Your task to perform on an android device: turn off smart reply in the gmail app Image 0: 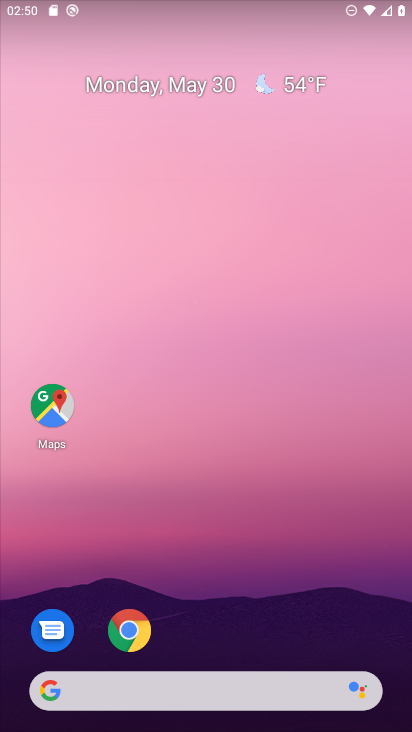
Step 0: press home button
Your task to perform on an android device: turn off smart reply in the gmail app Image 1: 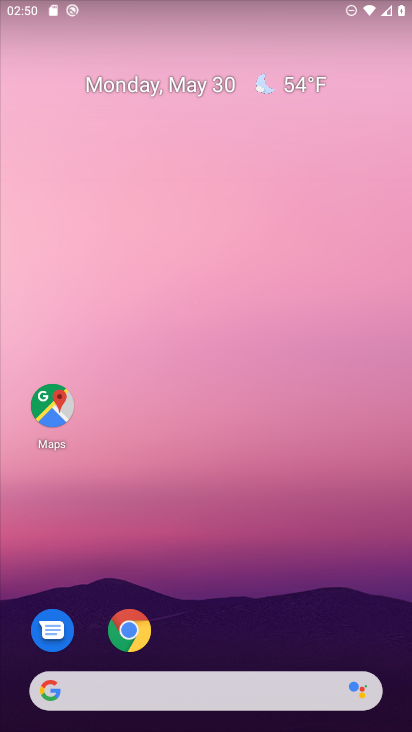
Step 1: drag from (157, 694) to (333, 275)
Your task to perform on an android device: turn off smart reply in the gmail app Image 2: 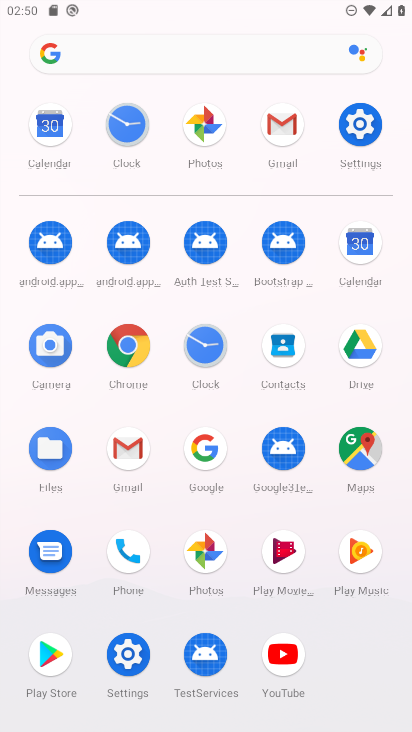
Step 2: click (281, 137)
Your task to perform on an android device: turn off smart reply in the gmail app Image 3: 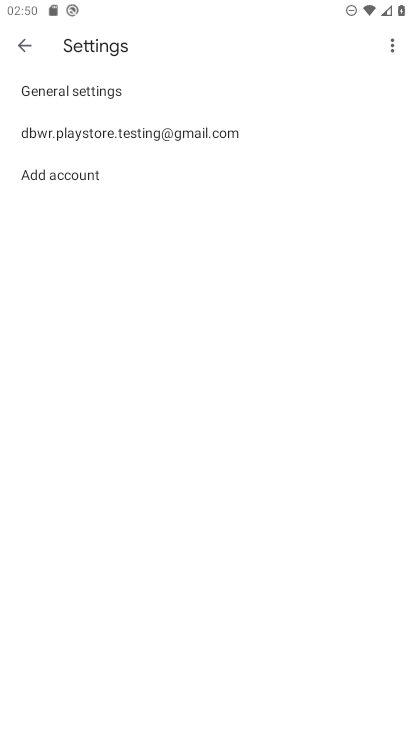
Step 3: click (157, 137)
Your task to perform on an android device: turn off smart reply in the gmail app Image 4: 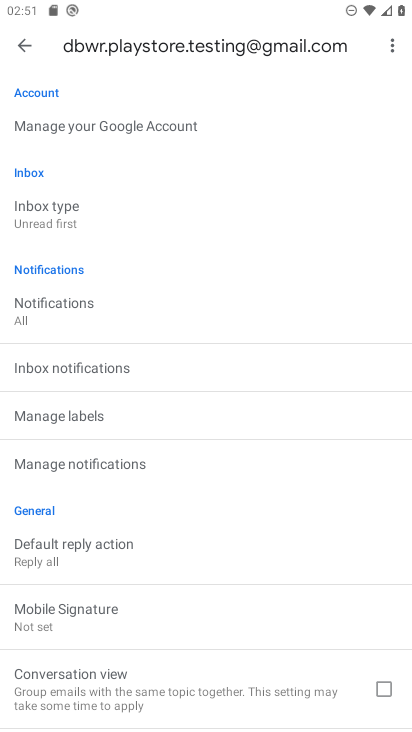
Step 4: drag from (220, 578) to (322, 205)
Your task to perform on an android device: turn off smart reply in the gmail app Image 5: 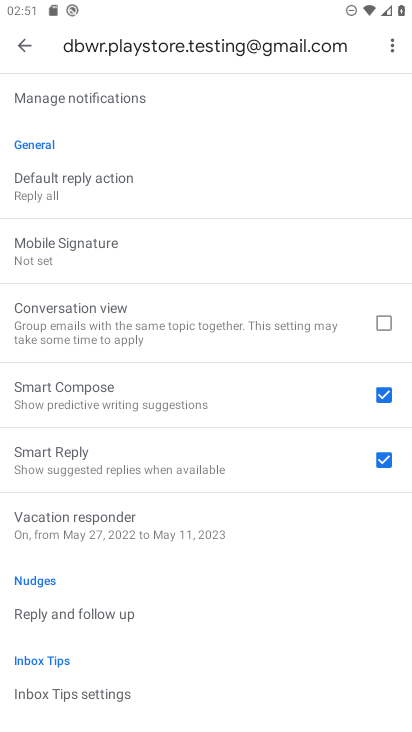
Step 5: click (380, 462)
Your task to perform on an android device: turn off smart reply in the gmail app Image 6: 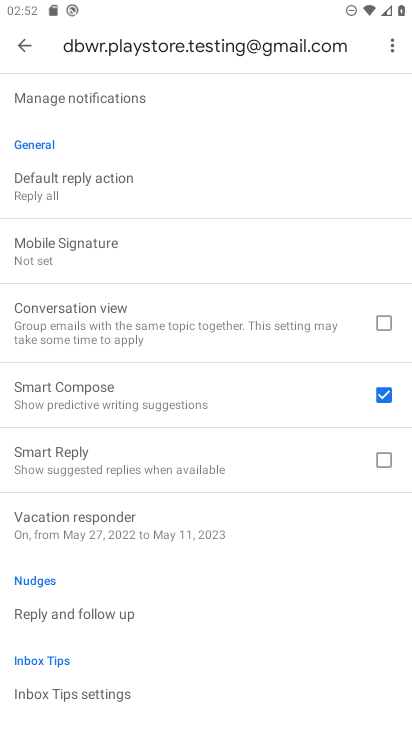
Step 6: task complete